Your task to perform on an android device: Go to Android settings Image 0: 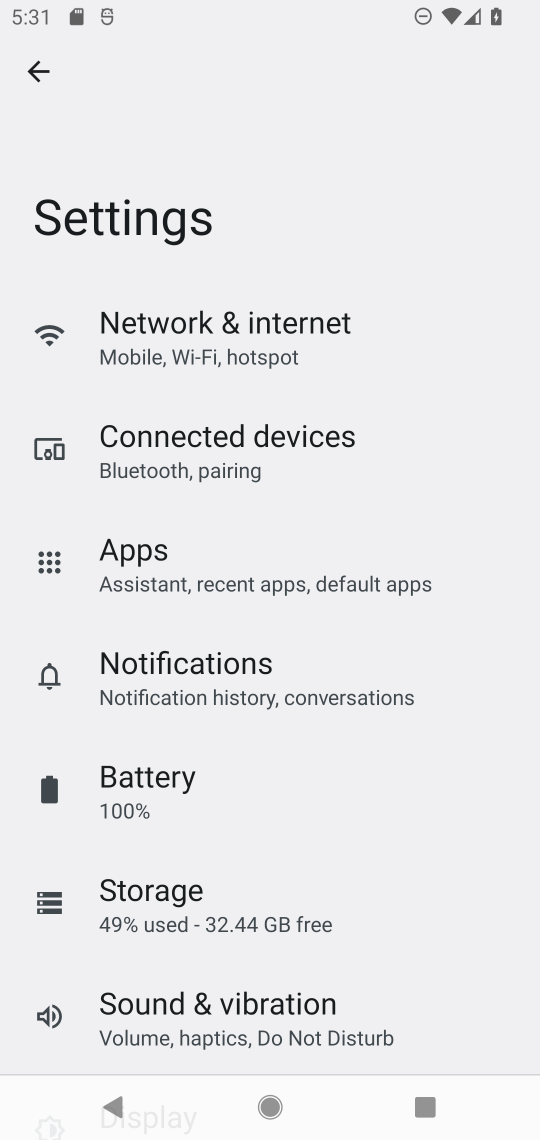
Step 0: press home button
Your task to perform on an android device: Go to Android settings Image 1: 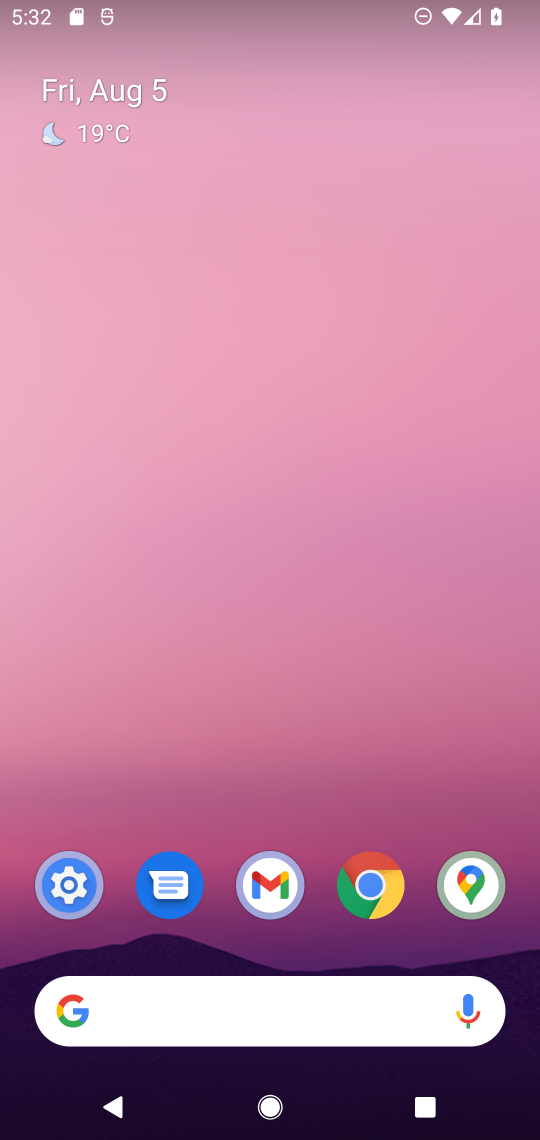
Step 1: drag from (318, 961) to (307, 63)
Your task to perform on an android device: Go to Android settings Image 2: 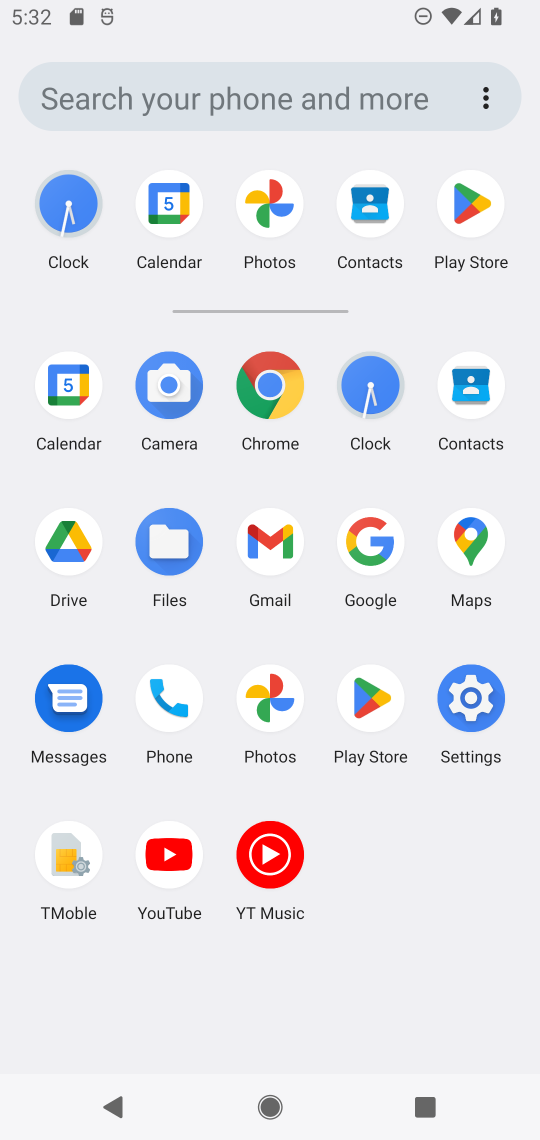
Step 2: click (476, 704)
Your task to perform on an android device: Go to Android settings Image 3: 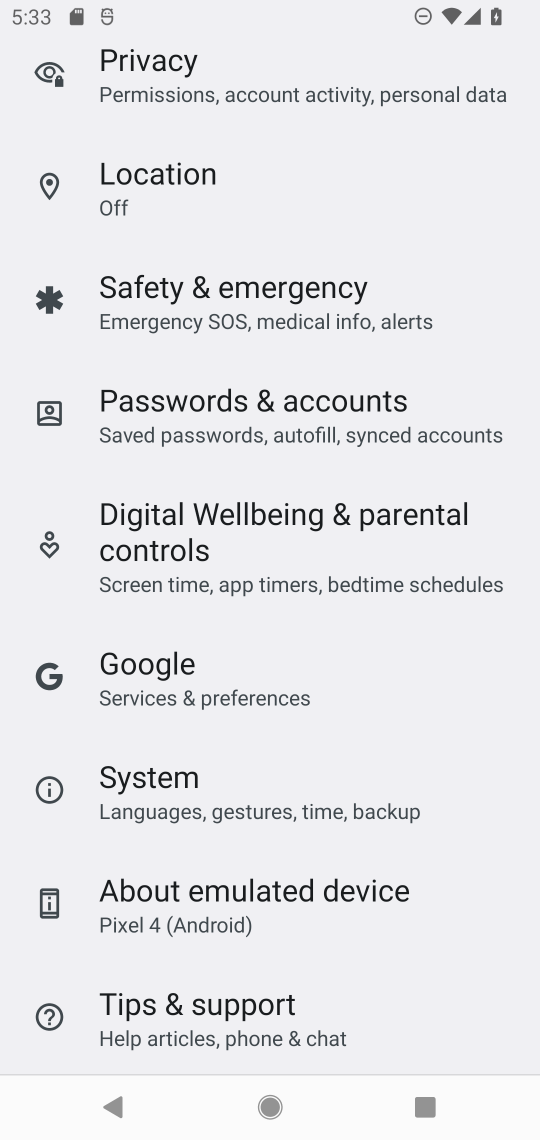
Step 3: task complete